Your task to perform on an android device: Open Android settings Image 0: 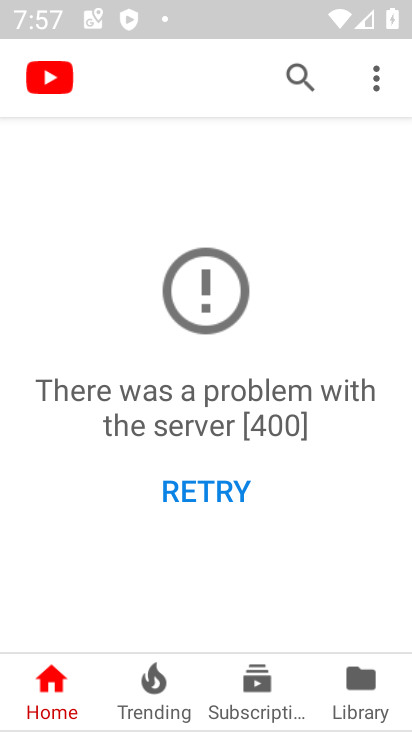
Step 0: press home button
Your task to perform on an android device: Open Android settings Image 1: 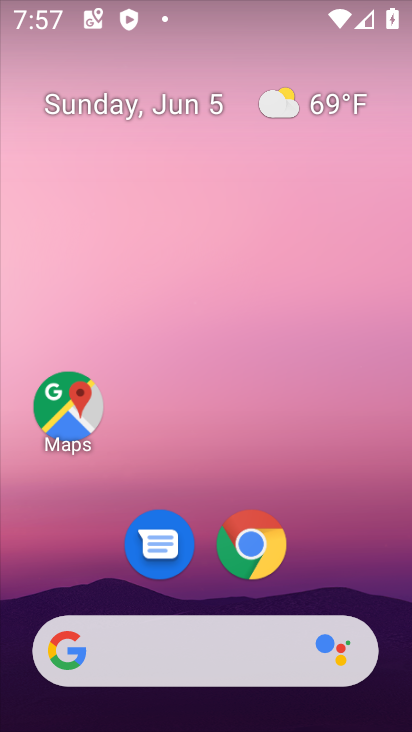
Step 1: drag from (367, 578) to (377, 171)
Your task to perform on an android device: Open Android settings Image 2: 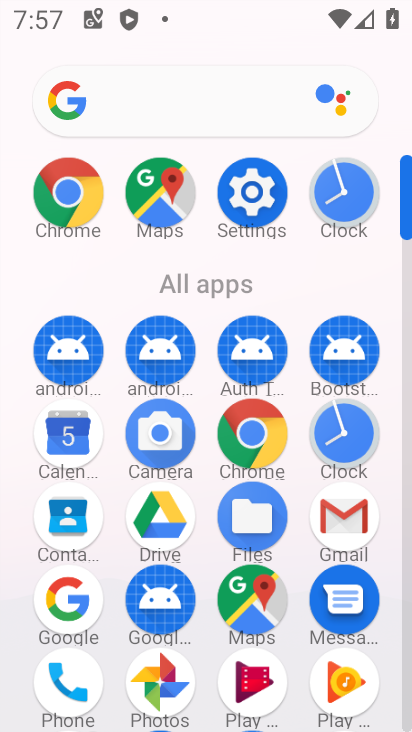
Step 2: click (265, 210)
Your task to perform on an android device: Open Android settings Image 3: 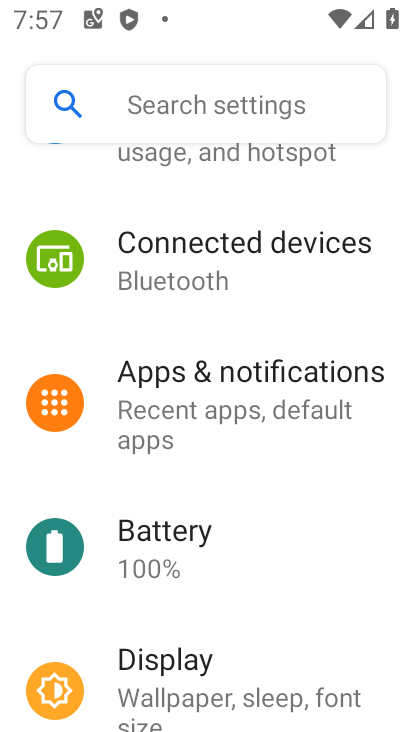
Step 3: drag from (323, 509) to (357, 392)
Your task to perform on an android device: Open Android settings Image 4: 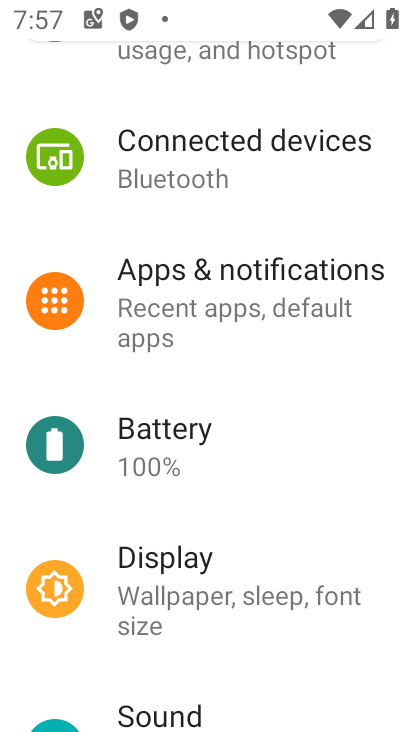
Step 4: drag from (356, 506) to (346, 349)
Your task to perform on an android device: Open Android settings Image 5: 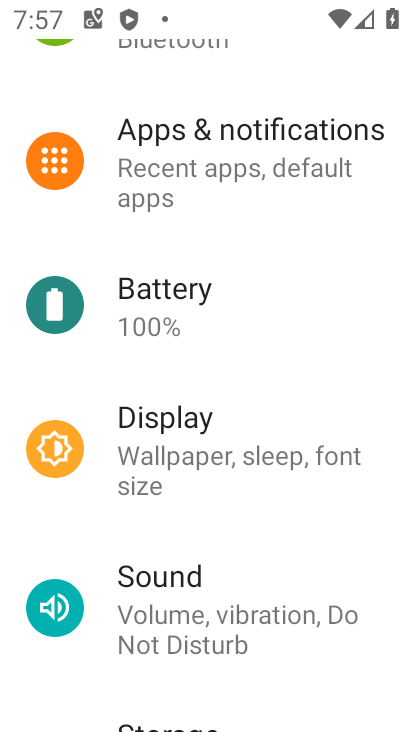
Step 5: drag from (349, 515) to (347, 389)
Your task to perform on an android device: Open Android settings Image 6: 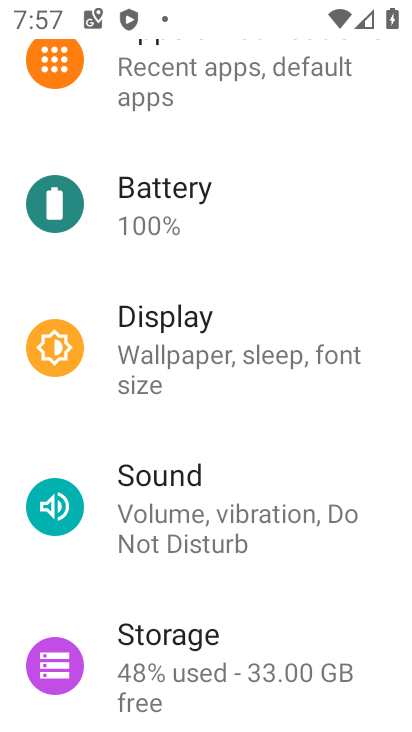
Step 6: drag from (362, 547) to (376, 414)
Your task to perform on an android device: Open Android settings Image 7: 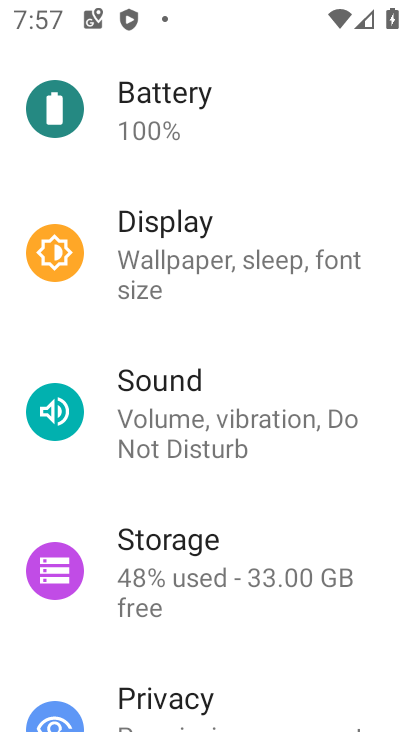
Step 7: drag from (357, 566) to (362, 442)
Your task to perform on an android device: Open Android settings Image 8: 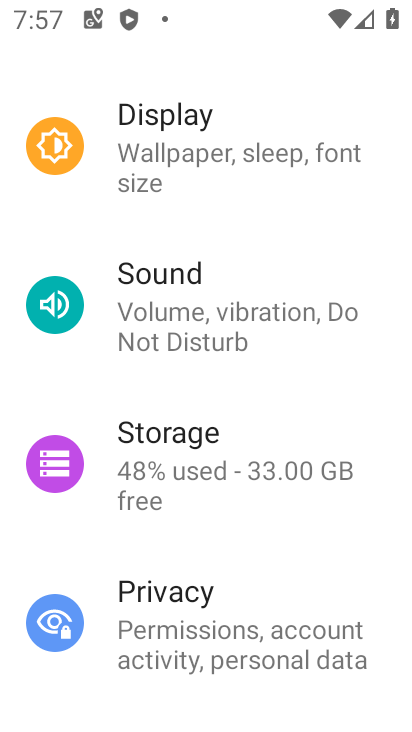
Step 8: drag from (379, 557) to (373, 409)
Your task to perform on an android device: Open Android settings Image 9: 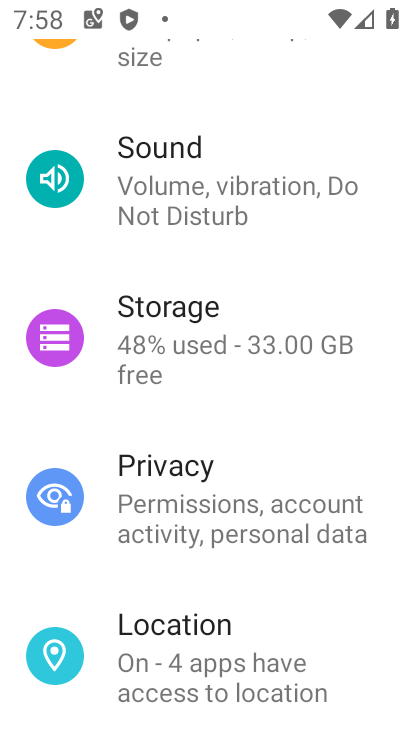
Step 9: drag from (370, 565) to (368, 433)
Your task to perform on an android device: Open Android settings Image 10: 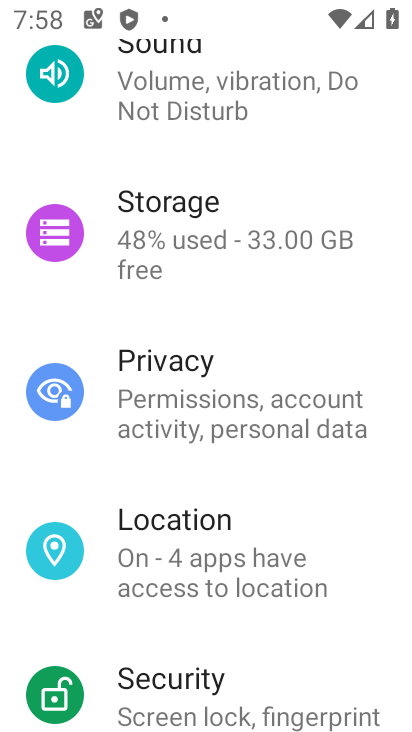
Step 10: drag from (358, 532) to (370, 399)
Your task to perform on an android device: Open Android settings Image 11: 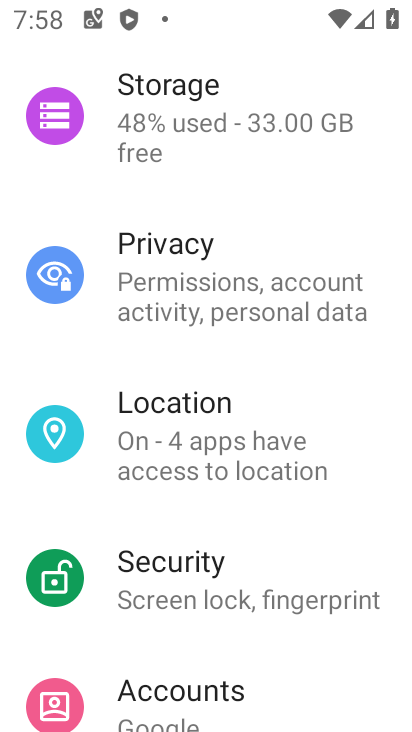
Step 11: drag from (354, 517) to (365, 389)
Your task to perform on an android device: Open Android settings Image 12: 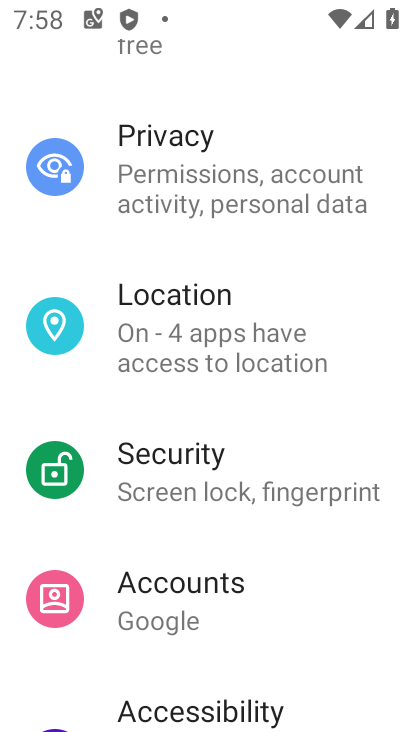
Step 12: drag from (364, 546) to (366, 415)
Your task to perform on an android device: Open Android settings Image 13: 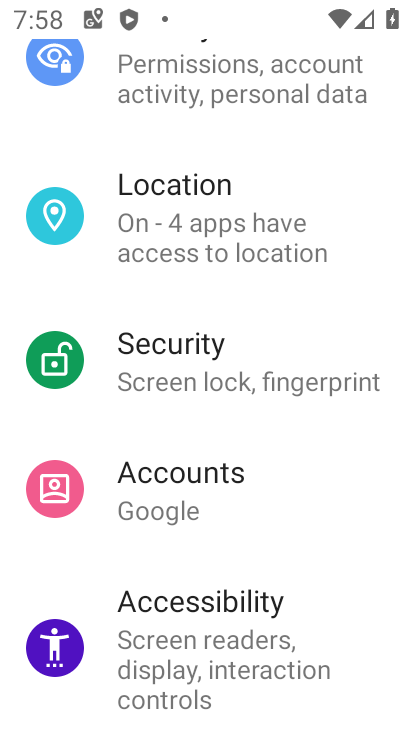
Step 13: drag from (369, 537) to (370, 422)
Your task to perform on an android device: Open Android settings Image 14: 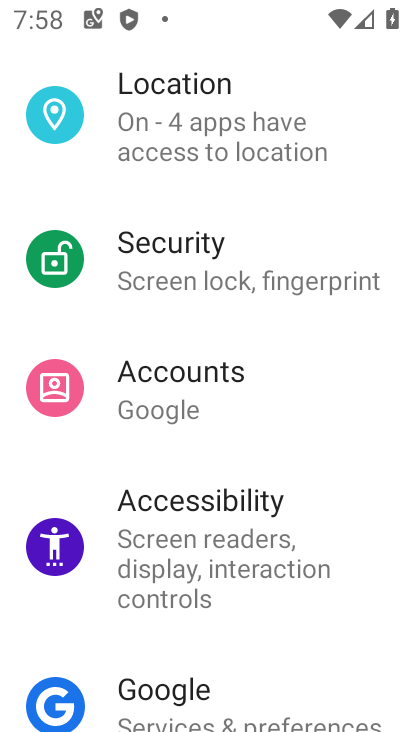
Step 14: drag from (356, 574) to (363, 421)
Your task to perform on an android device: Open Android settings Image 15: 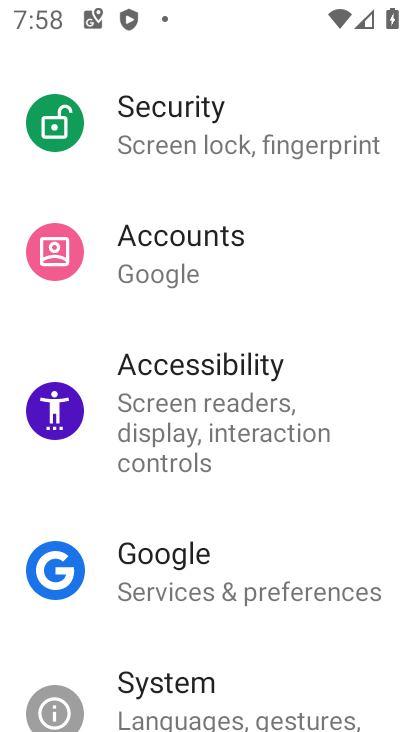
Step 15: drag from (353, 618) to (364, 258)
Your task to perform on an android device: Open Android settings Image 16: 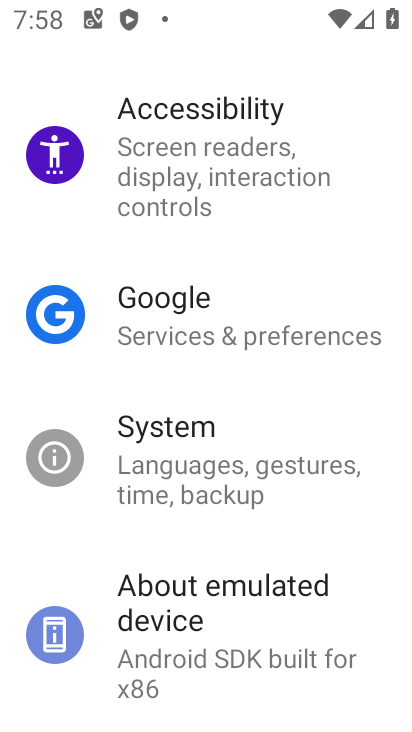
Step 16: click (312, 478)
Your task to perform on an android device: Open Android settings Image 17: 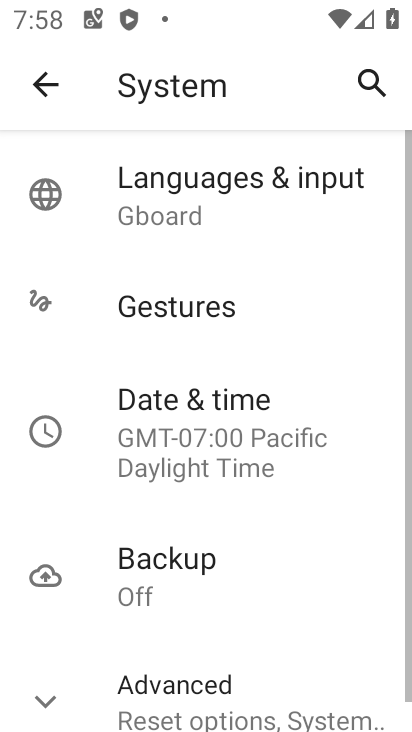
Step 17: drag from (294, 582) to (301, 391)
Your task to perform on an android device: Open Android settings Image 18: 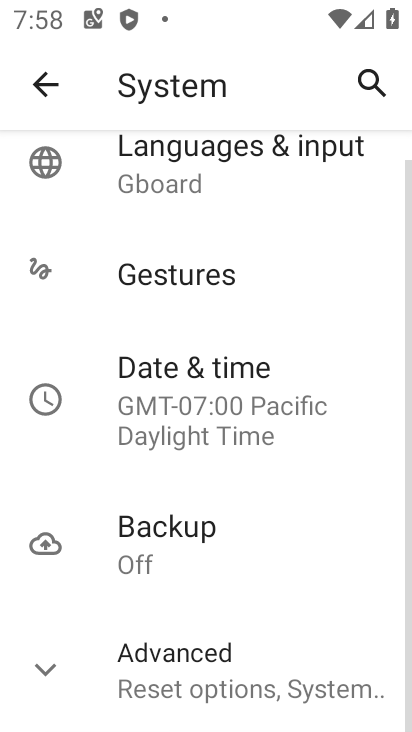
Step 18: click (288, 678)
Your task to perform on an android device: Open Android settings Image 19: 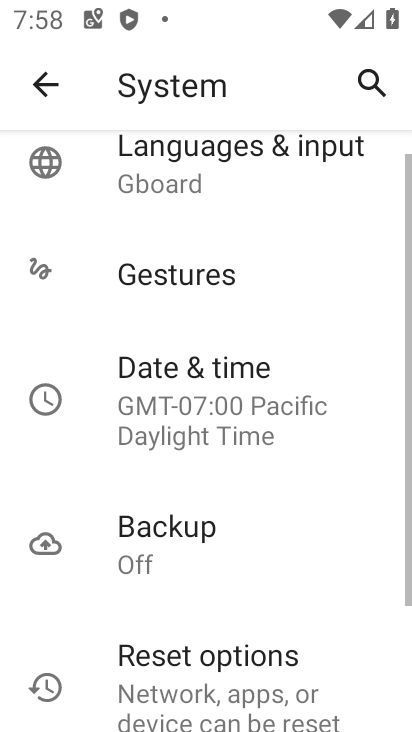
Step 19: task complete